Your task to perform on an android device: Open Yahoo.com Image 0: 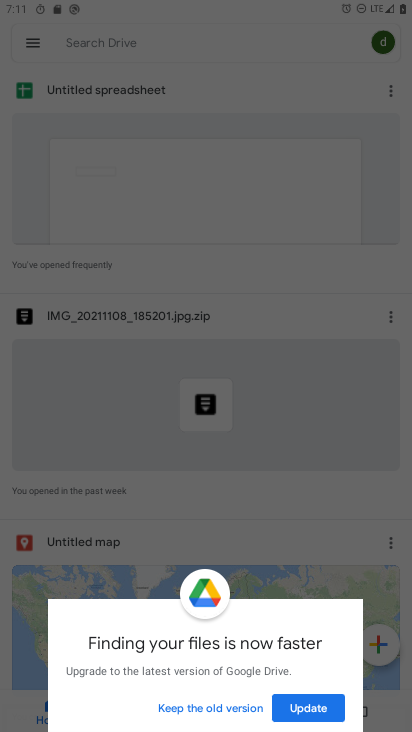
Step 0: press home button
Your task to perform on an android device: Open Yahoo.com Image 1: 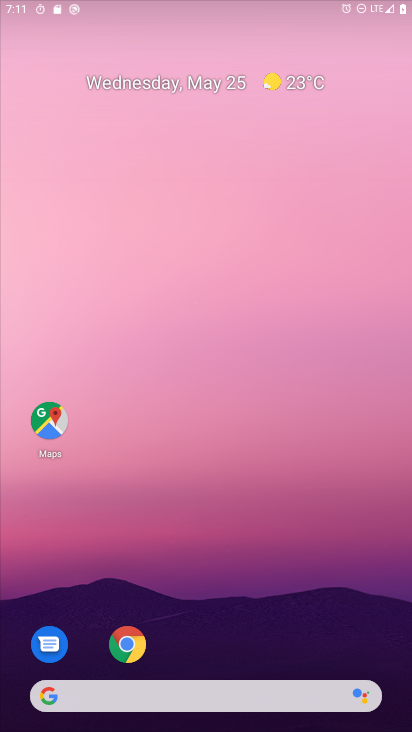
Step 1: drag from (383, 599) to (301, 3)
Your task to perform on an android device: Open Yahoo.com Image 2: 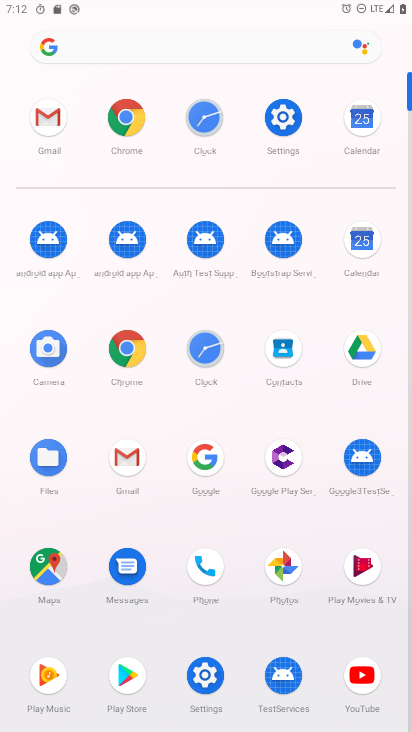
Step 2: click (211, 478)
Your task to perform on an android device: Open Yahoo.com Image 3: 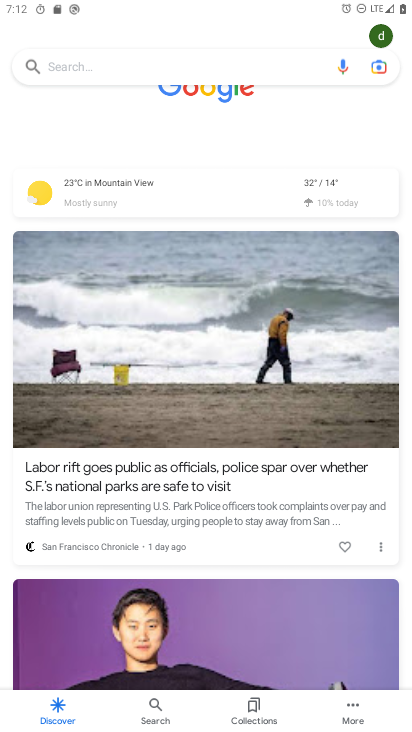
Step 3: click (117, 59)
Your task to perform on an android device: Open Yahoo.com Image 4: 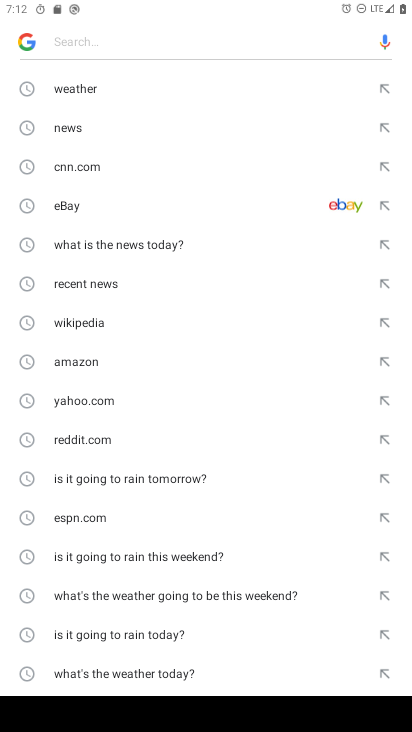
Step 4: click (142, 402)
Your task to perform on an android device: Open Yahoo.com Image 5: 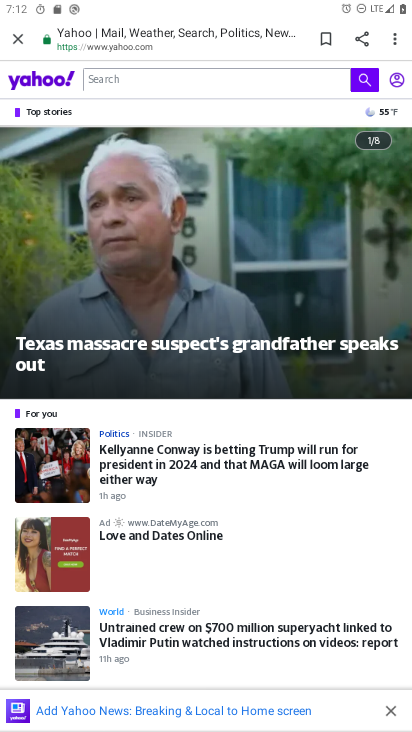
Step 5: task complete